Your task to perform on an android device: turn on bluetooth scan Image 0: 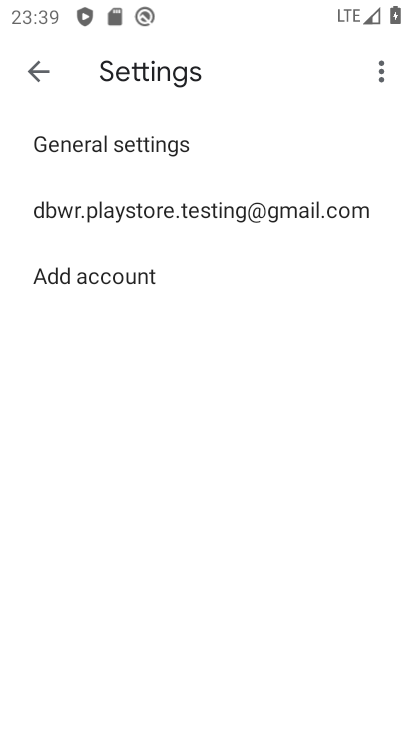
Step 0: press home button
Your task to perform on an android device: turn on bluetooth scan Image 1: 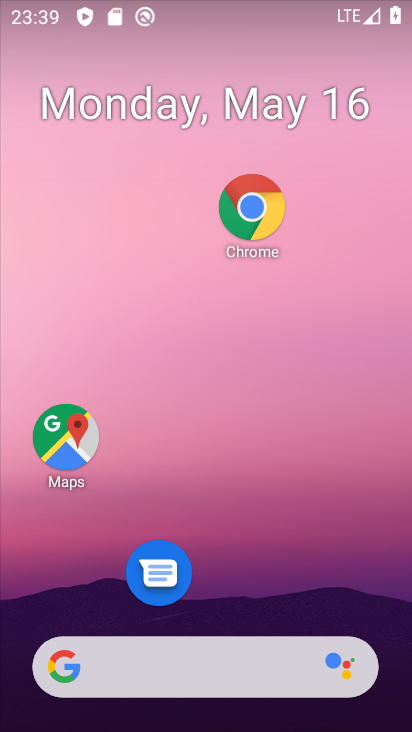
Step 1: drag from (164, 666) to (230, 51)
Your task to perform on an android device: turn on bluetooth scan Image 2: 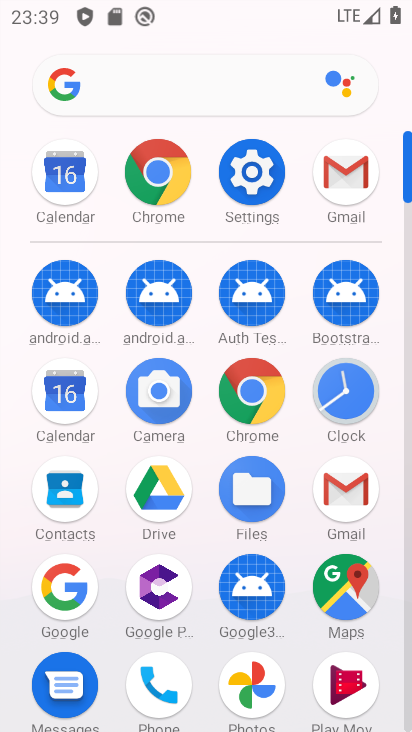
Step 2: click (269, 179)
Your task to perform on an android device: turn on bluetooth scan Image 3: 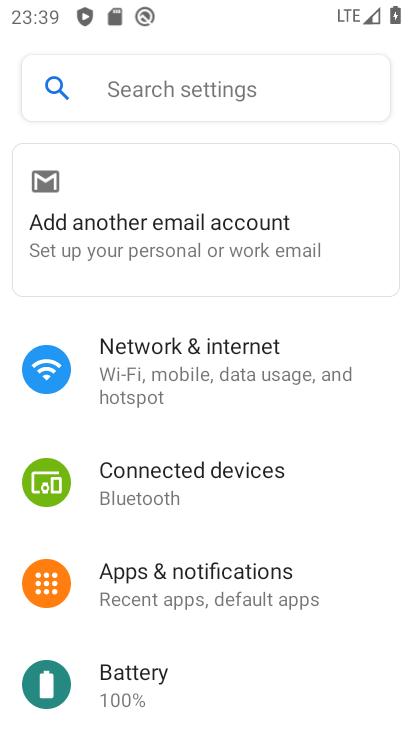
Step 3: drag from (277, 655) to (286, 65)
Your task to perform on an android device: turn on bluetooth scan Image 4: 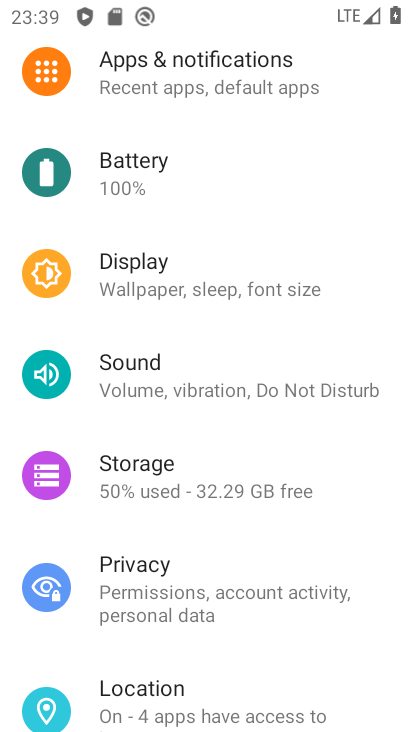
Step 4: drag from (209, 651) to (256, 413)
Your task to perform on an android device: turn on bluetooth scan Image 5: 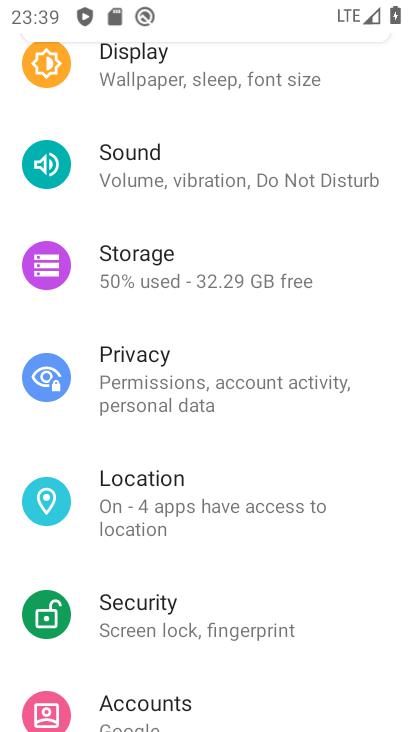
Step 5: click (224, 488)
Your task to perform on an android device: turn on bluetooth scan Image 6: 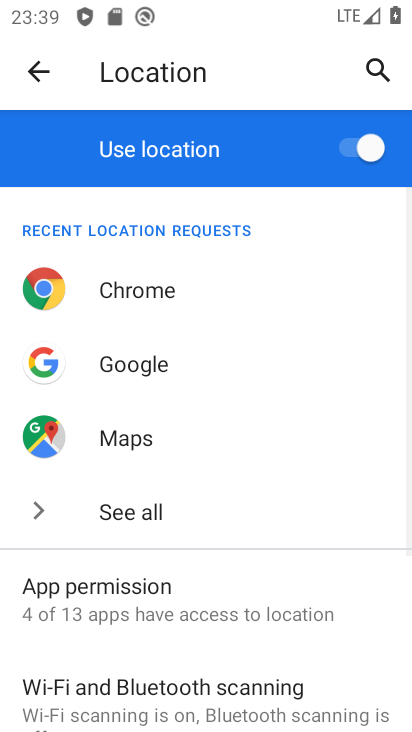
Step 6: drag from (299, 642) to (289, 218)
Your task to perform on an android device: turn on bluetooth scan Image 7: 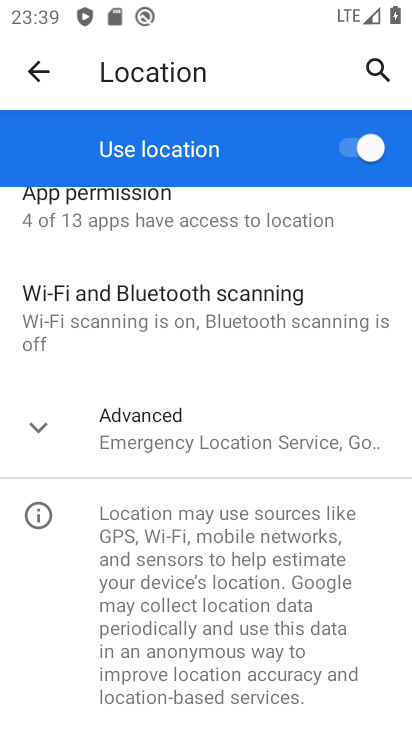
Step 7: click (223, 304)
Your task to perform on an android device: turn on bluetooth scan Image 8: 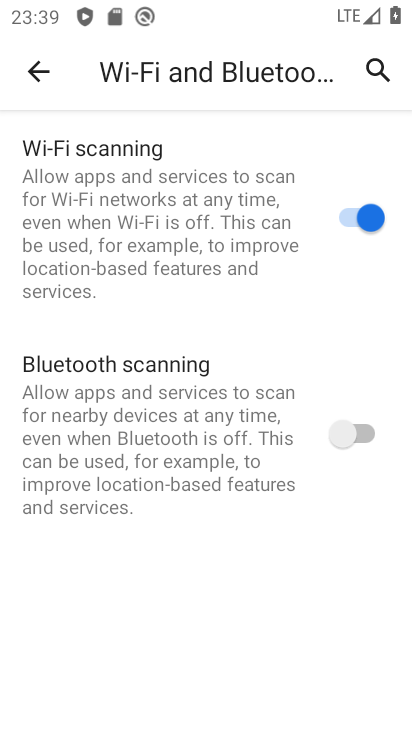
Step 8: click (366, 432)
Your task to perform on an android device: turn on bluetooth scan Image 9: 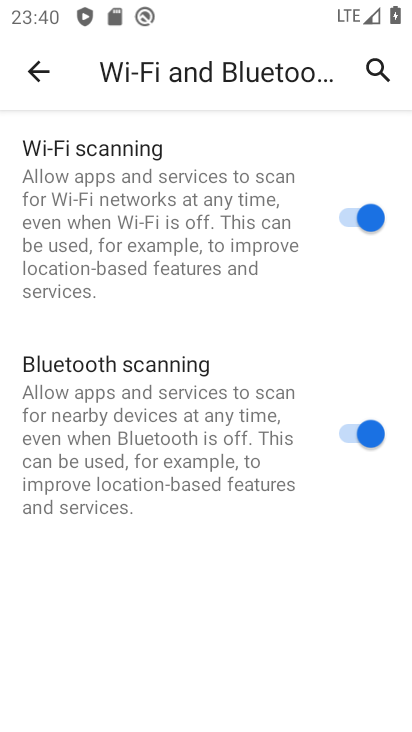
Step 9: task complete